Your task to perform on an android device: Go to wifi settings Image 0: 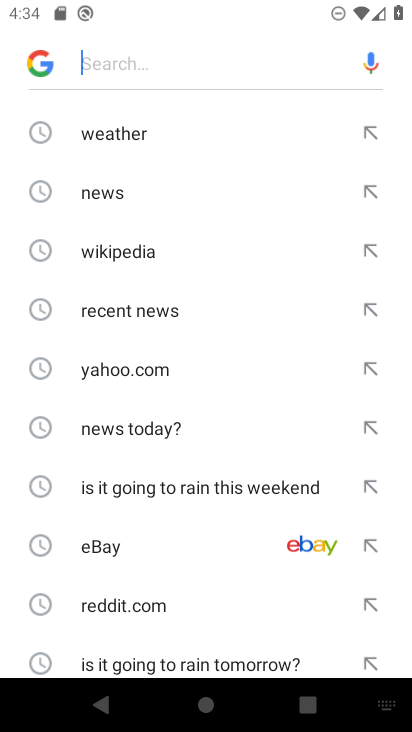
Step 0: press home button
Your task to perform on an android device: Go to wifi settings Image 1: 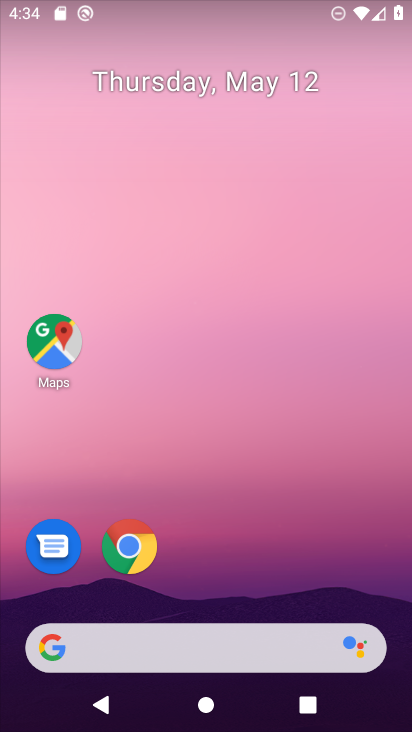
Step 1: drag from (244, 572) to (301, 252)
Your task to perform on an android device: Go to wifi settings Image 2: 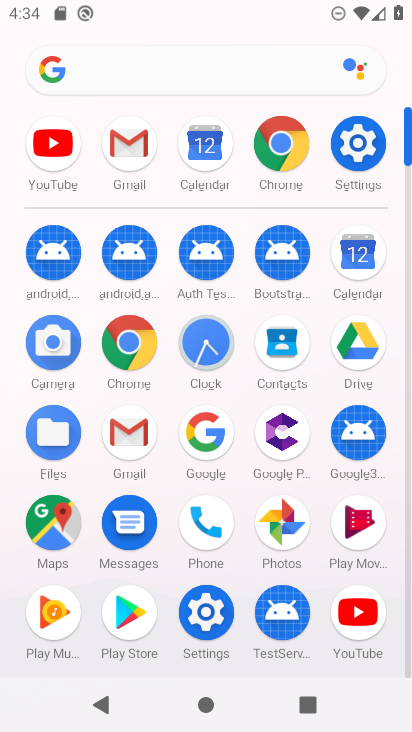
Step 2: click (356, 131)
Your task to perform on an android device: Go to wifi settings Image 3: 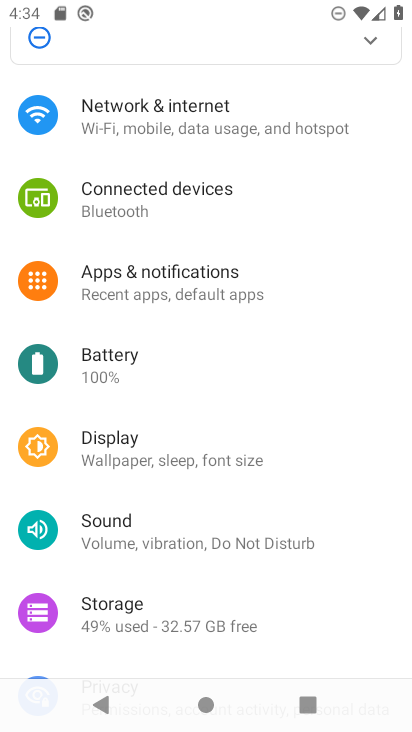
Step 3: click (187, 117)
Your task to perform on an android device: Go to wifi settings Image 4: 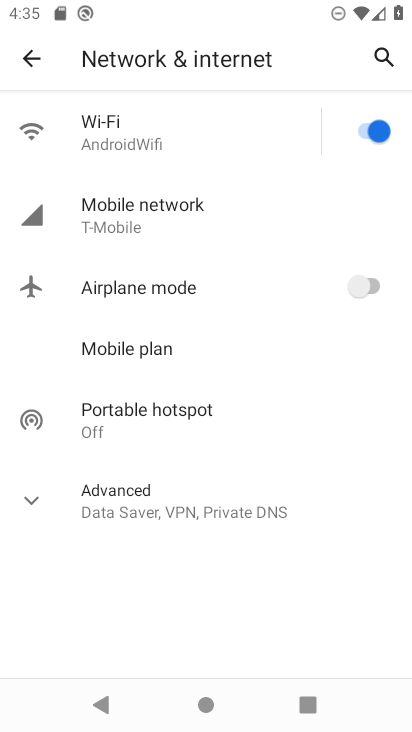
Step 4: click (136, 128)
Your task to perform on an android device: Go to wifi settings Image 5: 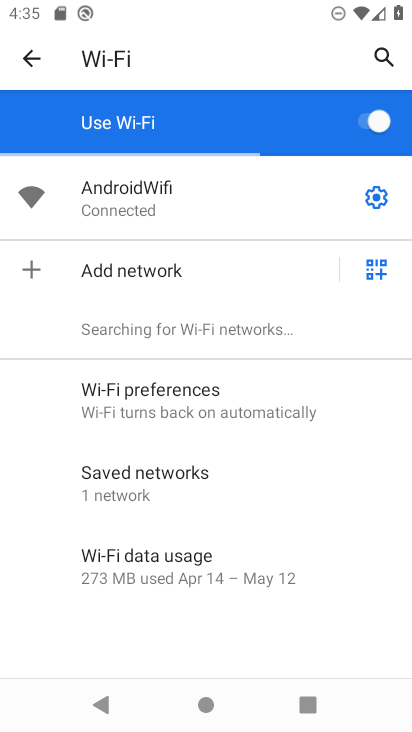
Step 5: task complete